Your task to perform on an android device: Open internet settings Image 0: 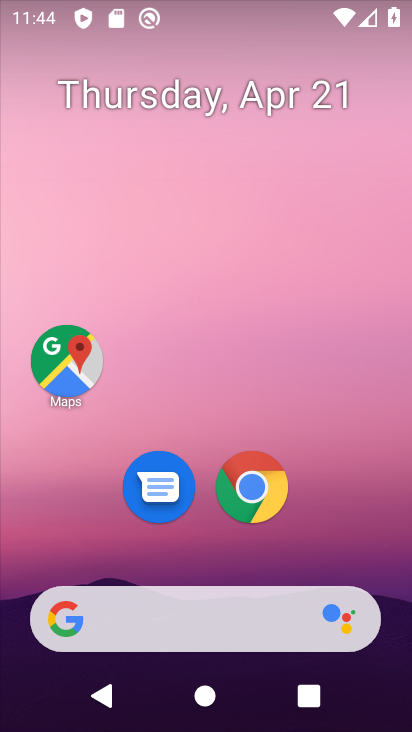
Step 0: drag from (182, 555) to (229, 37)
Your task to perform on an android device: Open internet settings Image 1: 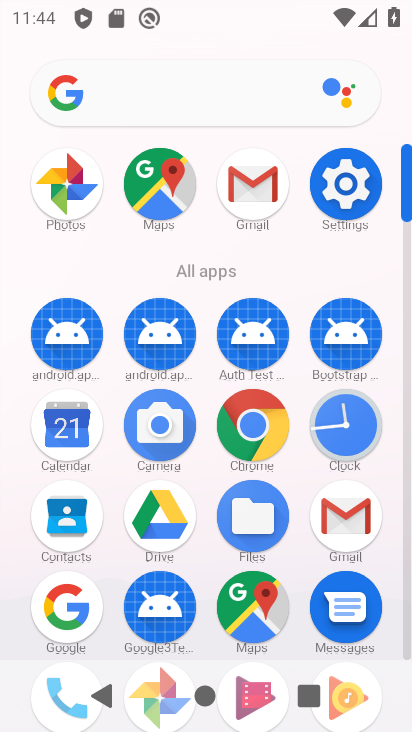
Step 1: click (350, 197)
Your task to perform on an android device: Open internet settings Image 2: 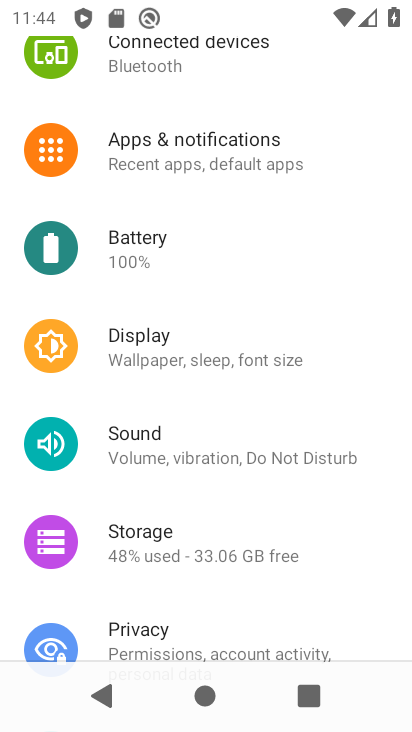
Step 2: drag from (204, 97) to (138, 703)
Your task to perform on an android device: Open internet settings Image 3: 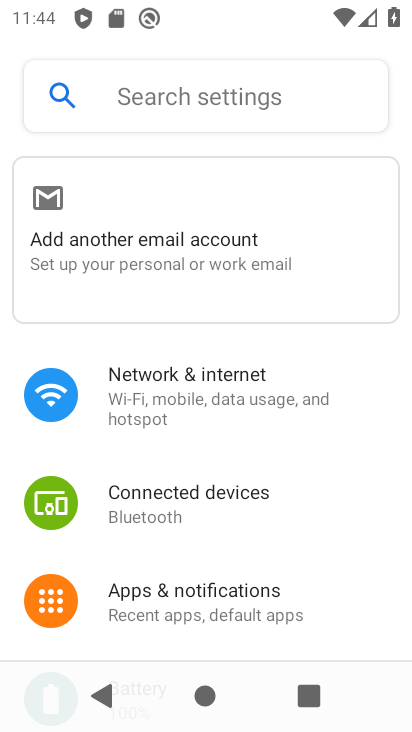
Step 3: click (172, 401)
Your task to perform on an android device: Open internet settings Image 4: 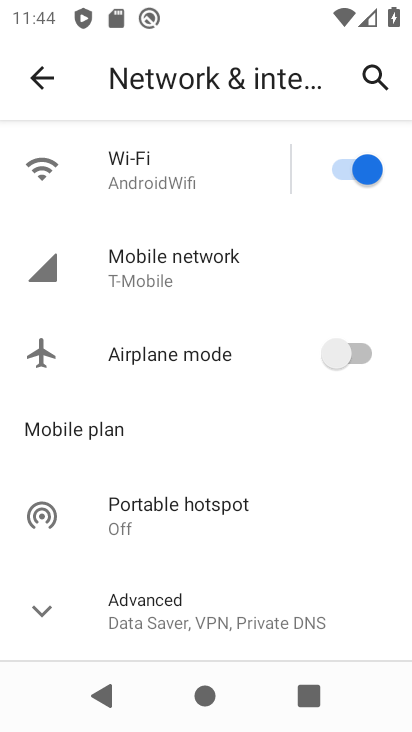
Step 4: task complete